Your task to perform on an android device: Go to sound settings Image 0: 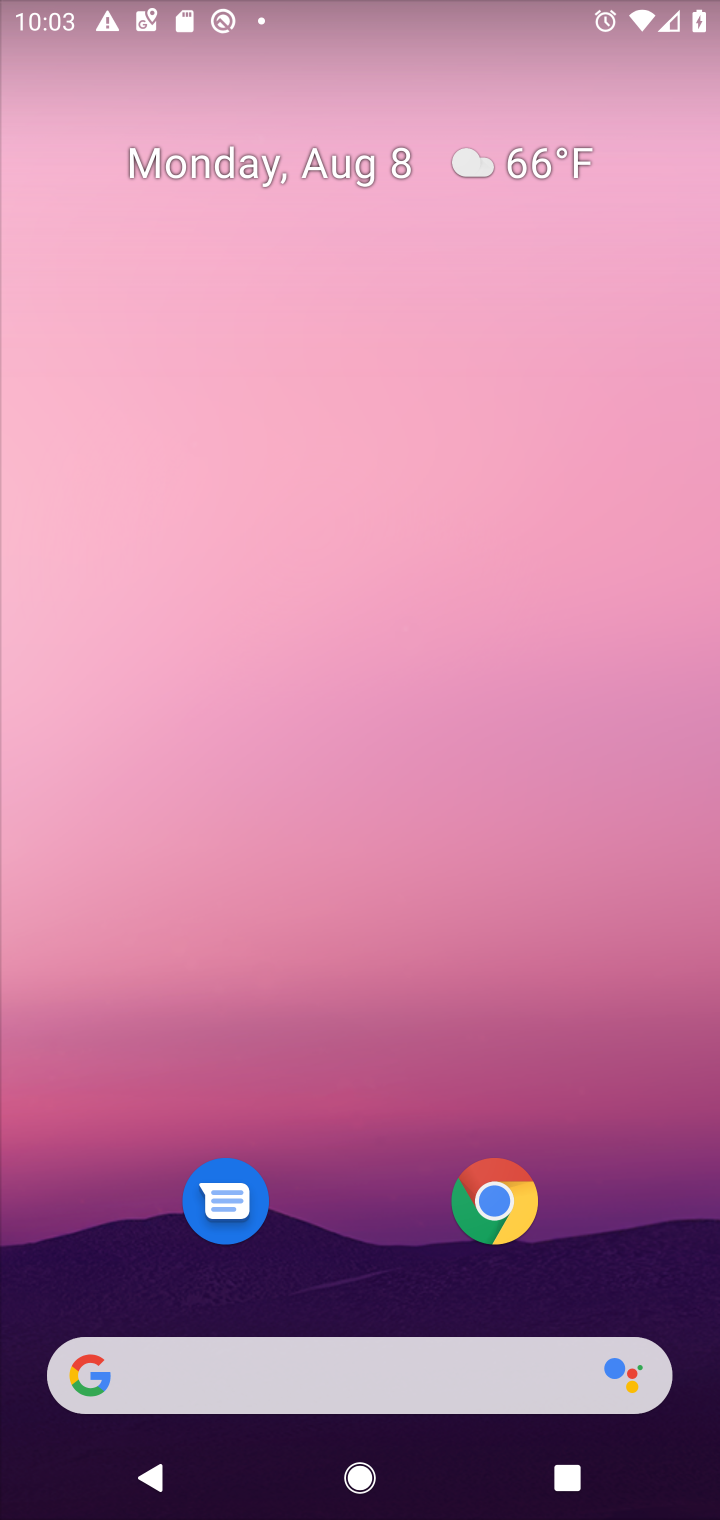
Step 0: press home button
Your task to perform on an android device: Go to sound settings Image 1: 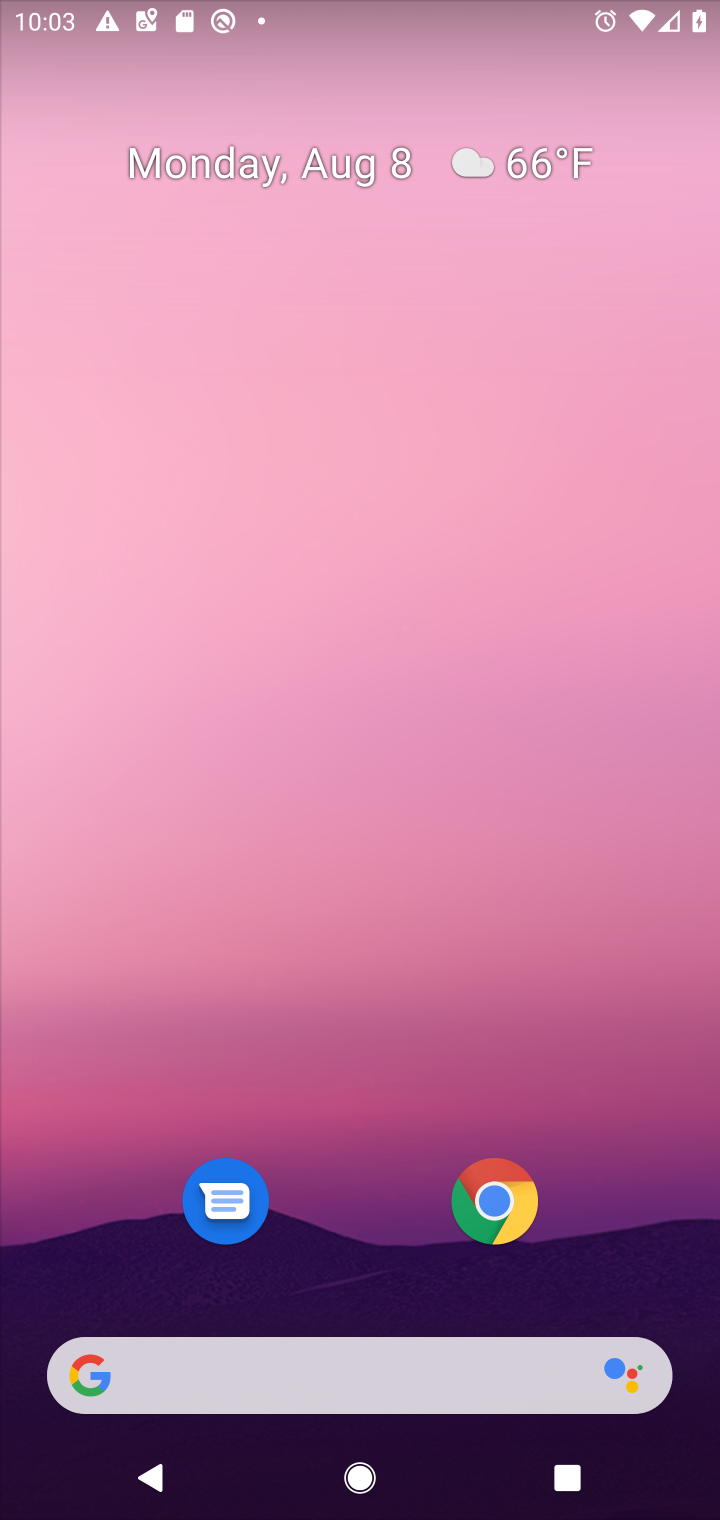
Step 1: drag from (364, 966) to (403, 209)
Your task to perform on an android device: Go to sound settings Image 2: 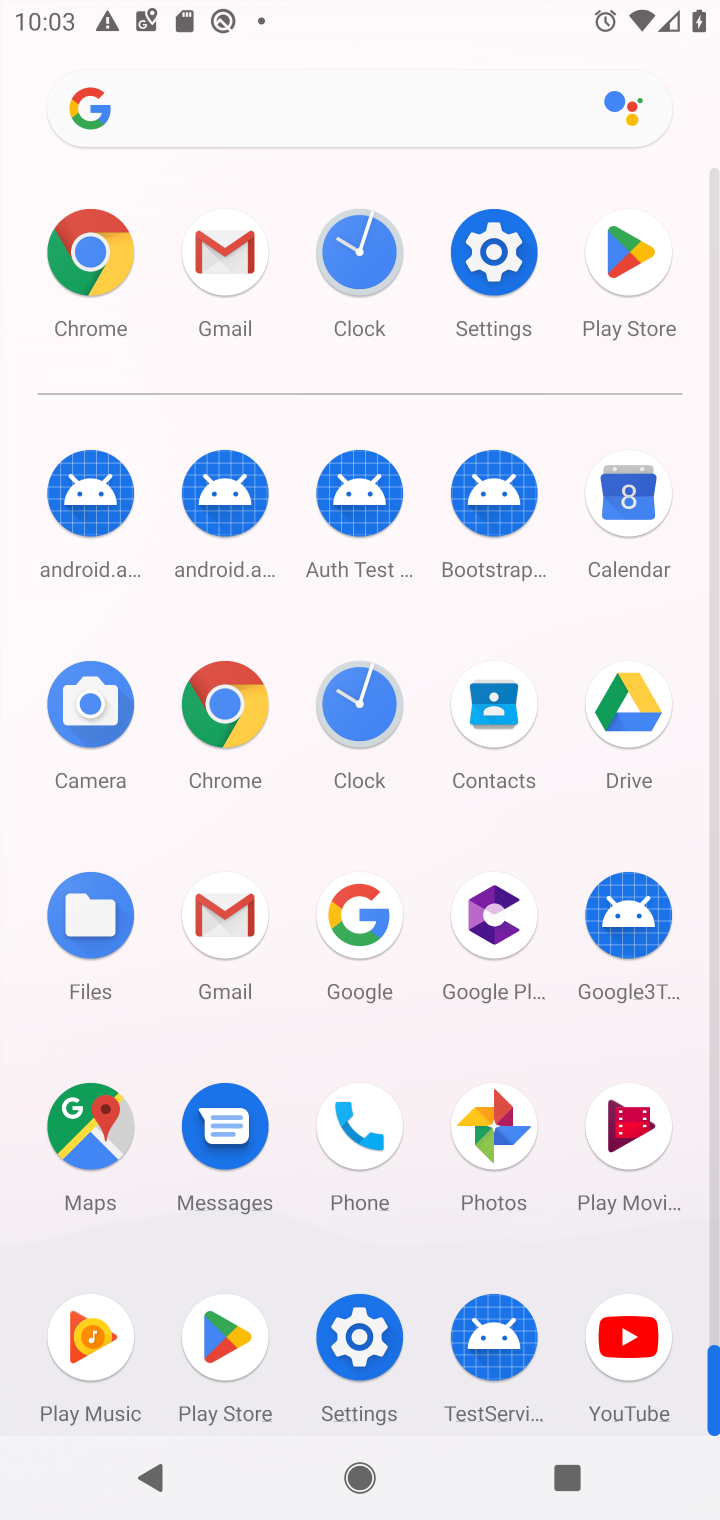
Step 2: click (497, 240)
Your task to perform on an android device: Go to sound settings Image 3: 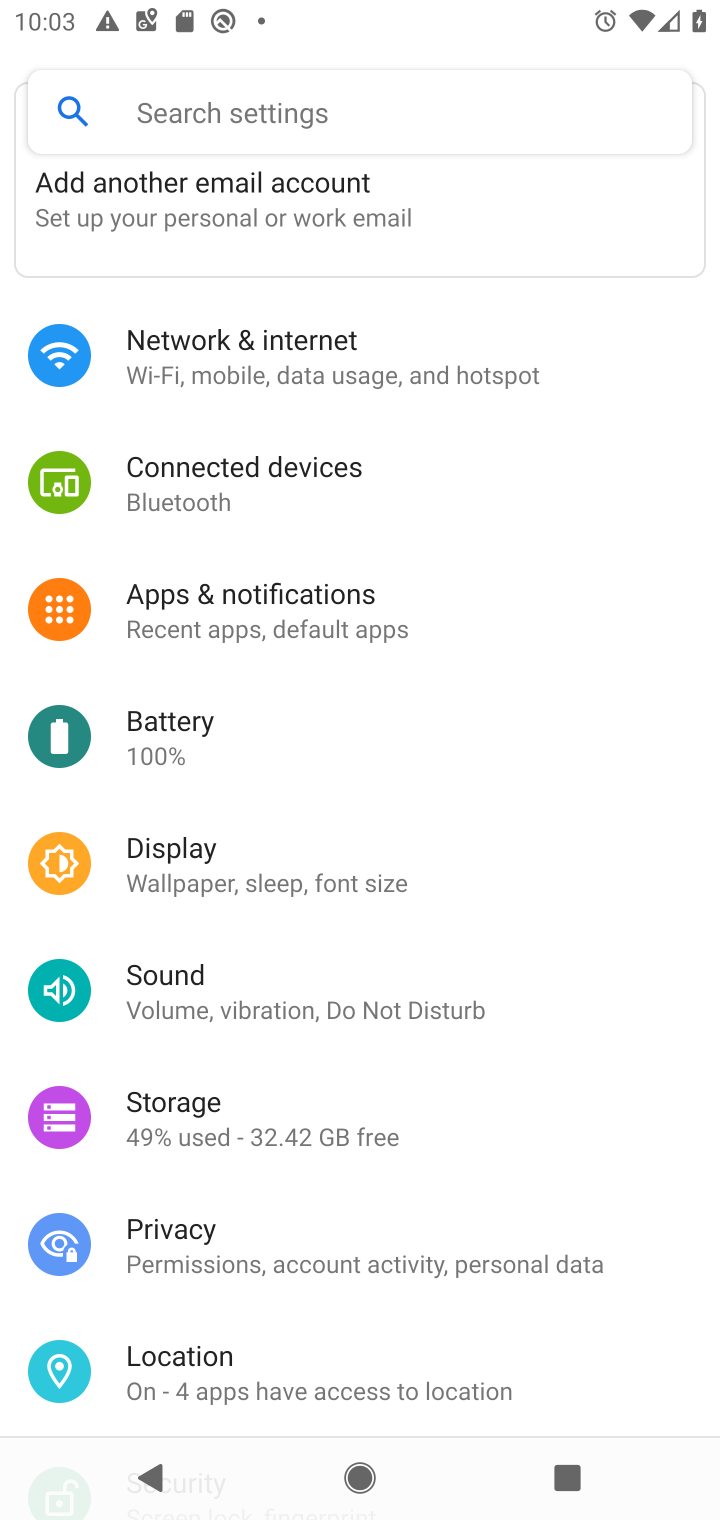
Step 3: drag from (616, 1094) to (633, 754)
Your task to perform on an android device: Go to sound settings Image 4: 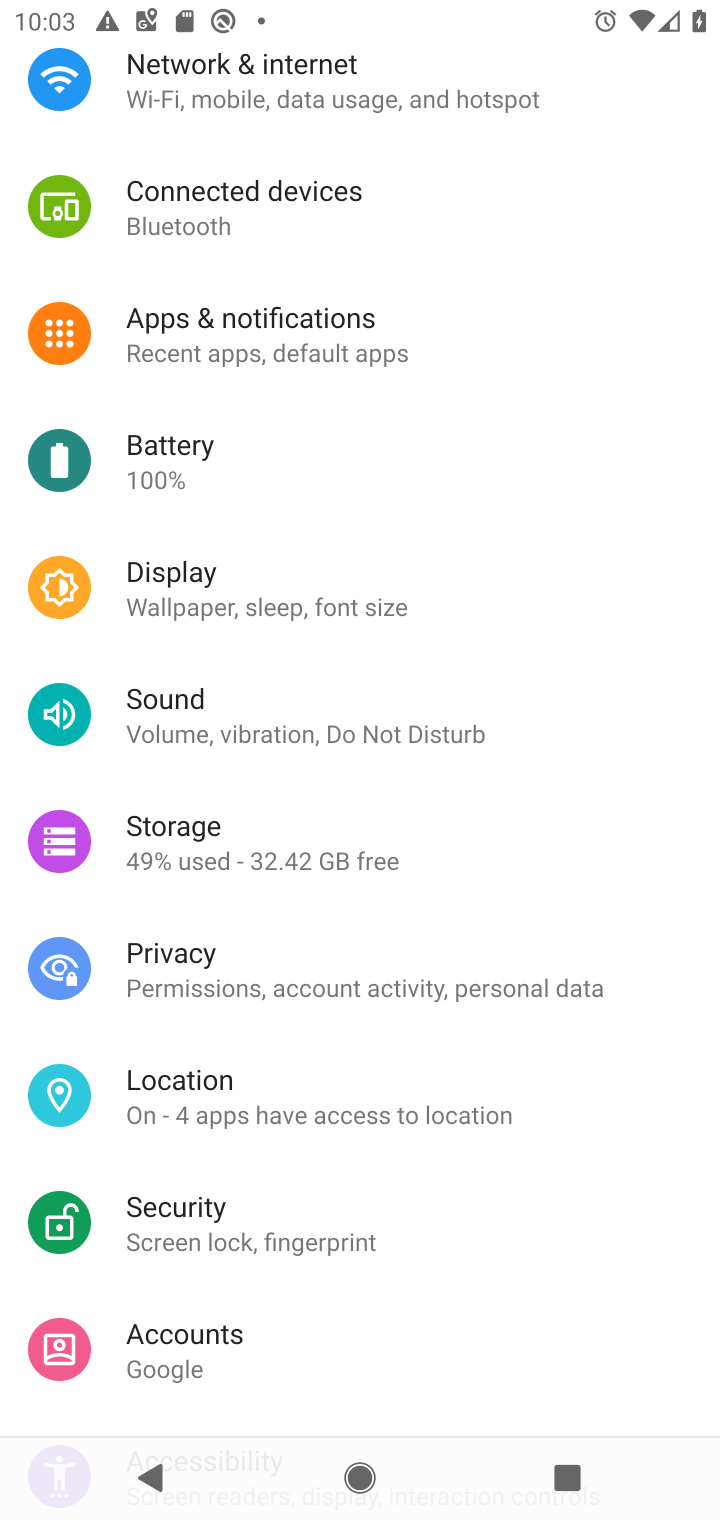
Step 4: drag from (600, 1221) to (612, 800)
Your task to perform on an android device: Go to sound settings Image 5: 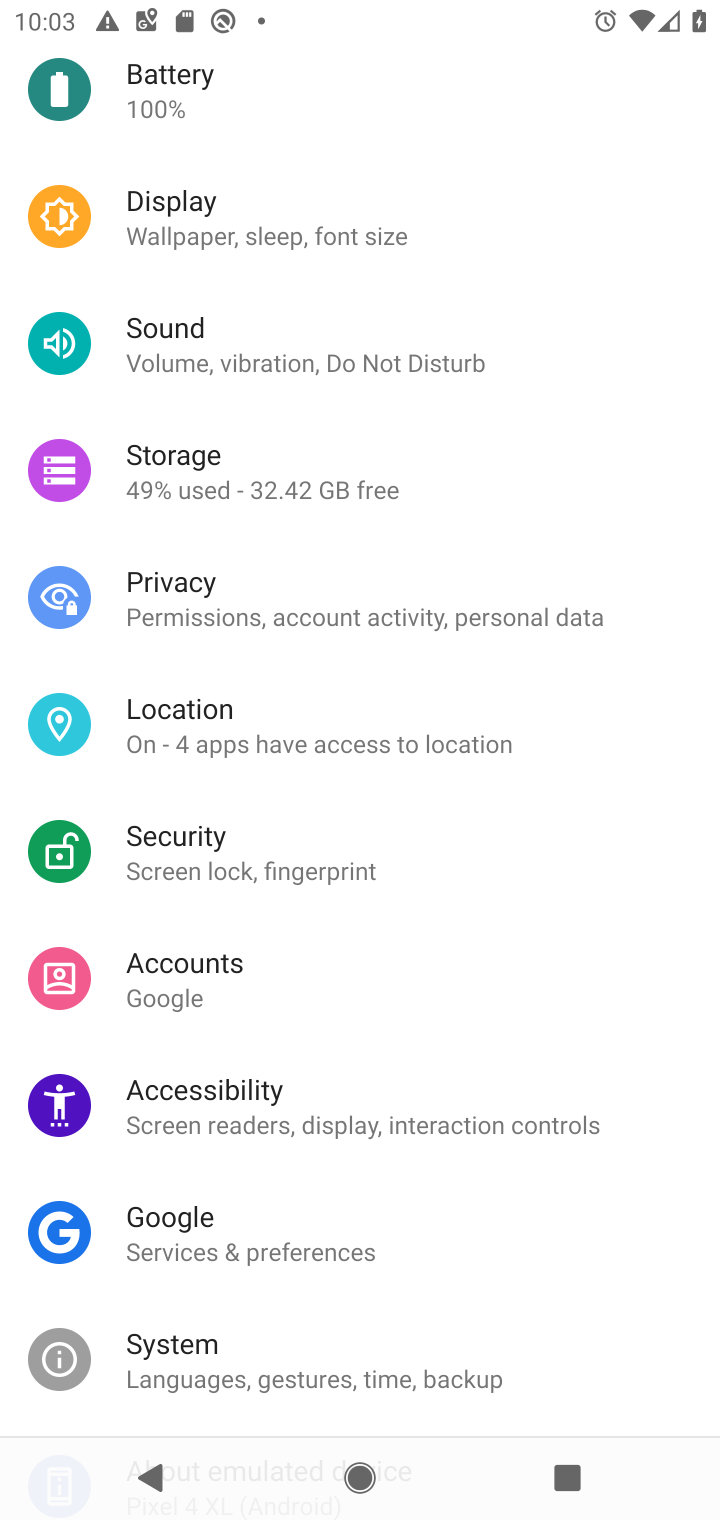
Step 5: drag from (552, 1113) to (592, 696)
Your task to perform on an android device: Go to sound settings Image 6: 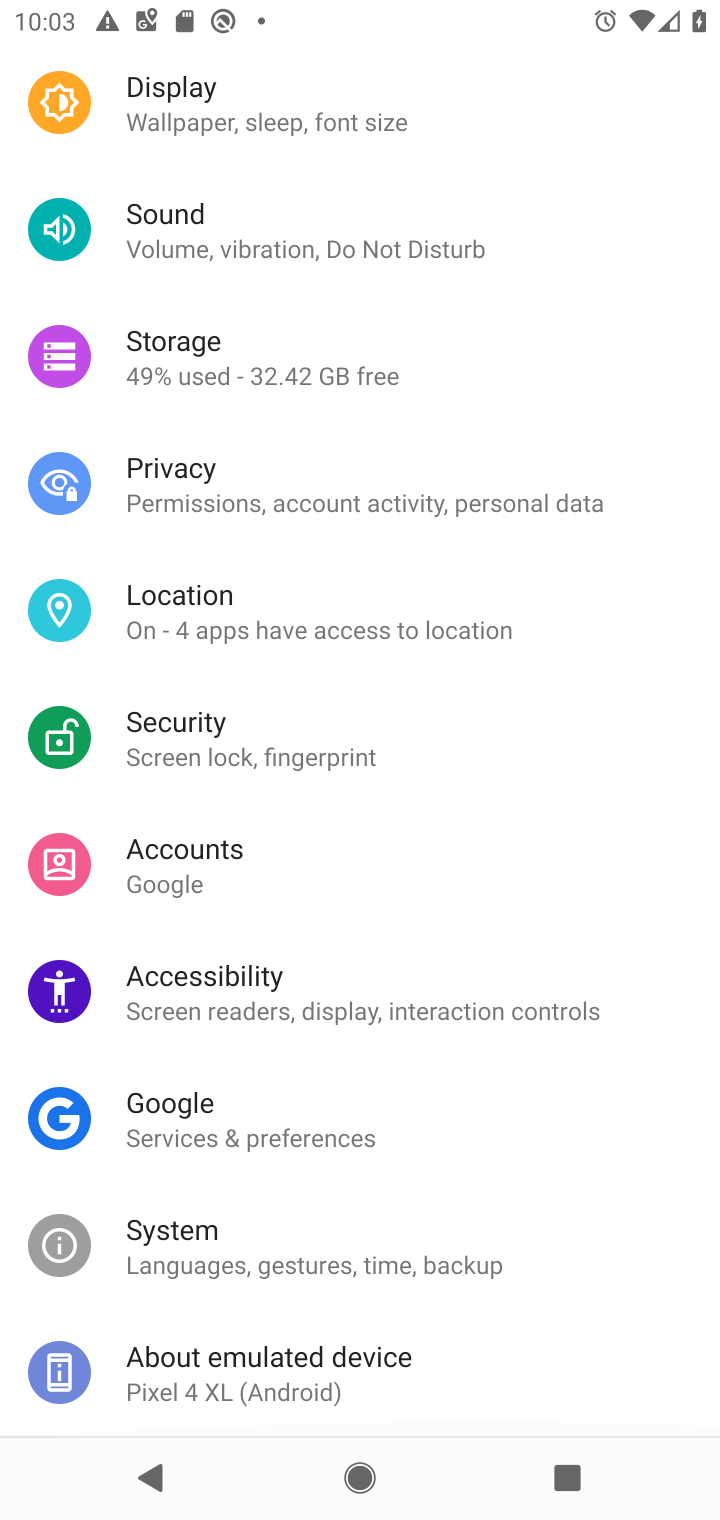
Step 6: drag from (571, 1220) to (607, 604)
Your task to perform on an android device: Go to sound settings Image 7: 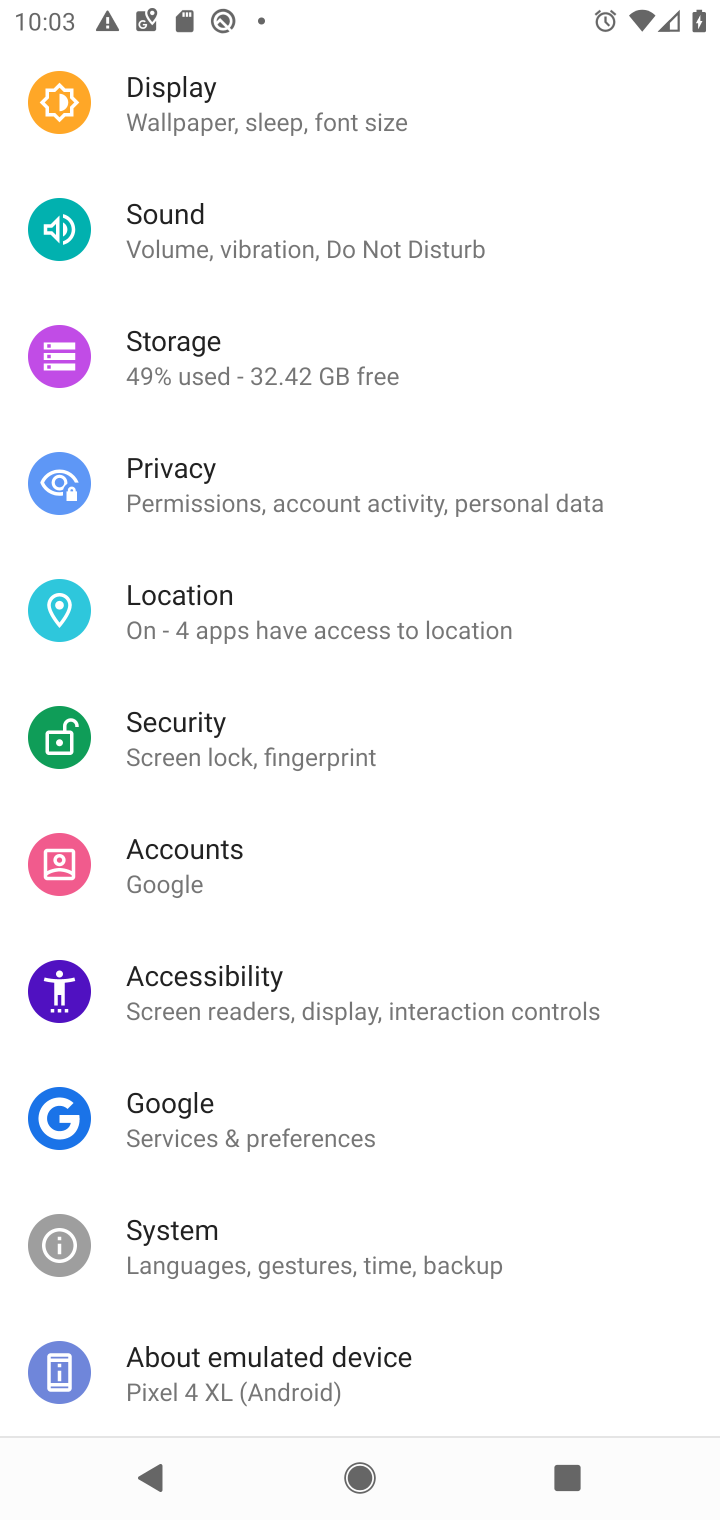
Step 7: drag from (615, 499) to (636, 860)
Your task to perform on an android device: Go to sound settings Image 8: 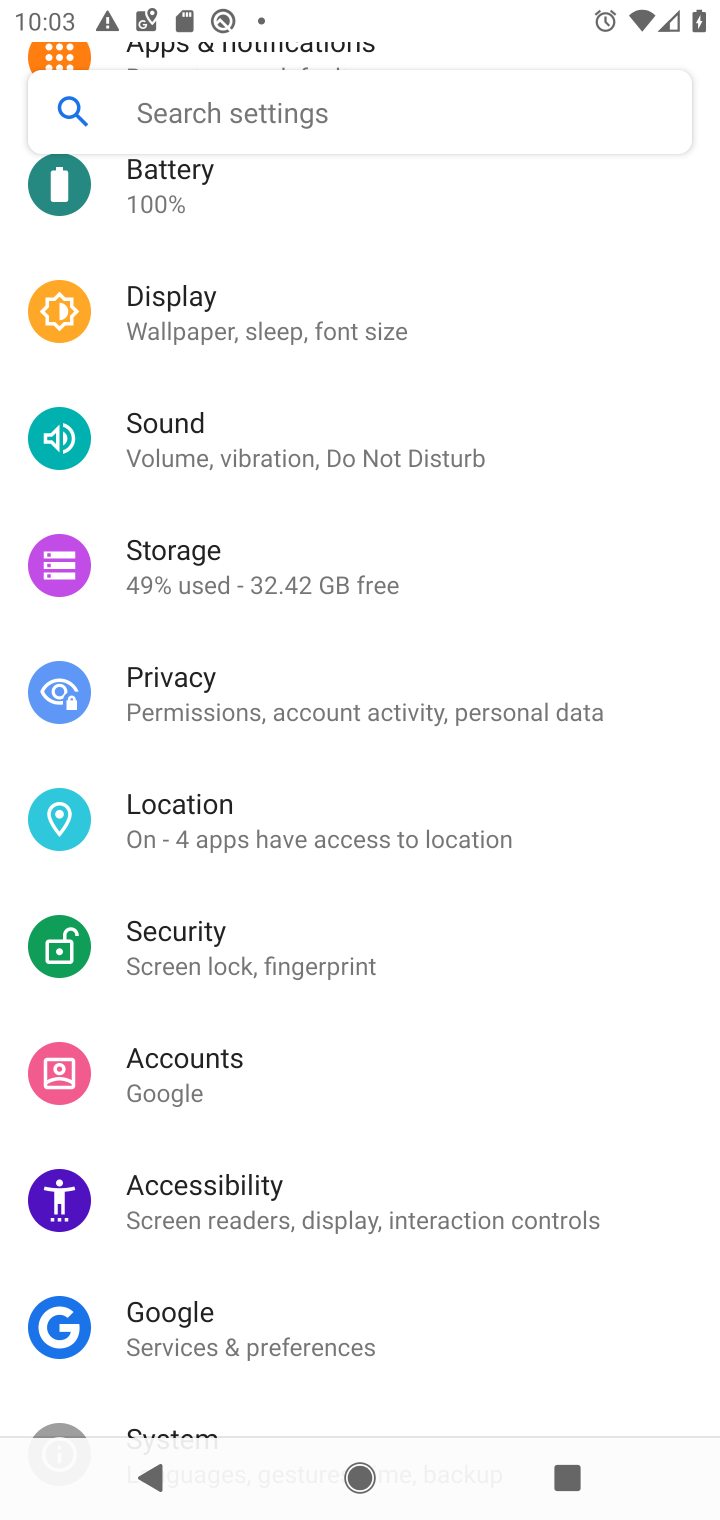
Step 8: drag from (583, 387) to (604, 998)
Your task to perform on an android device: Go to sound settings Image 9: 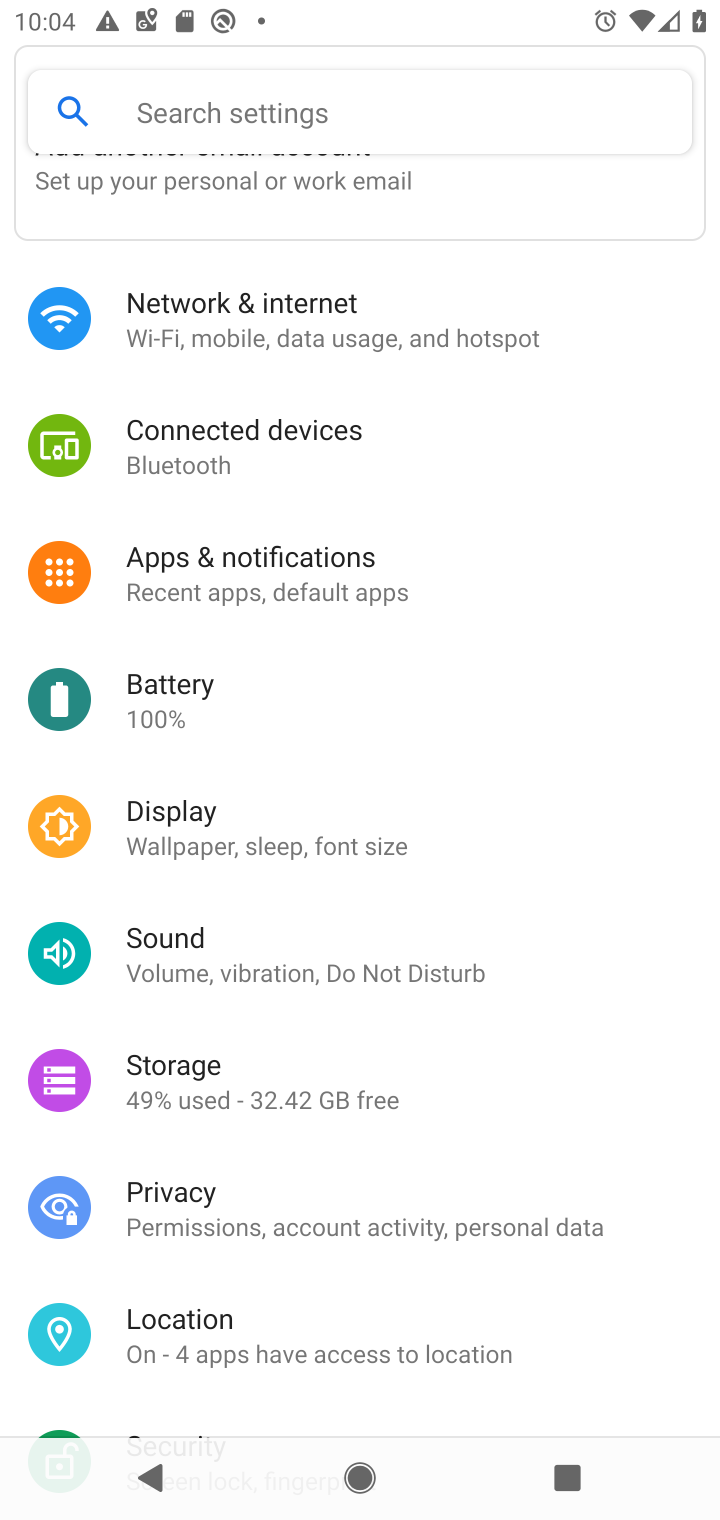
Step 9: click (394, 954)
Your task to perform on an android device: Go to sound settings Image 10: 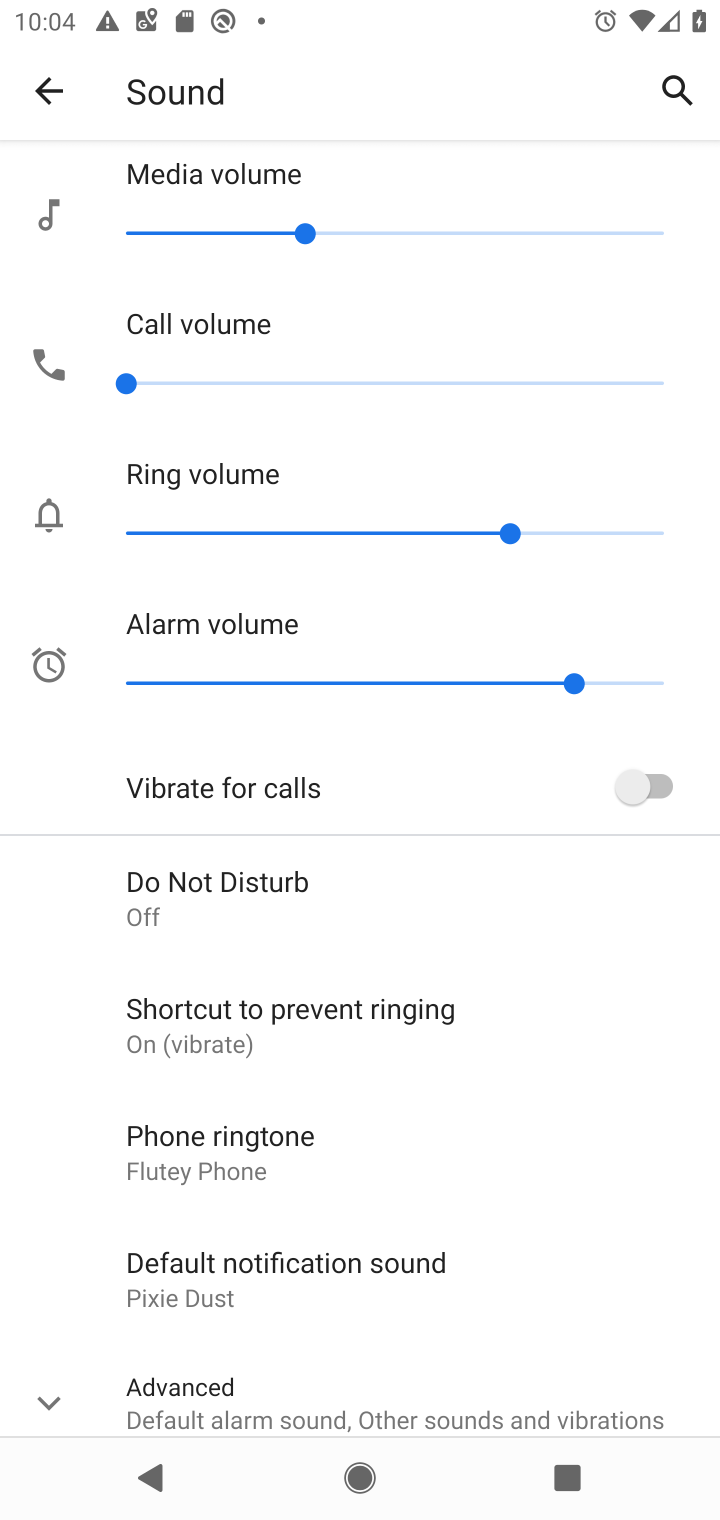
Step 10: task complete